Your task to perform on an android device: Add "bose soundlink" to the cart on amazon, then select checkout. Image 0: 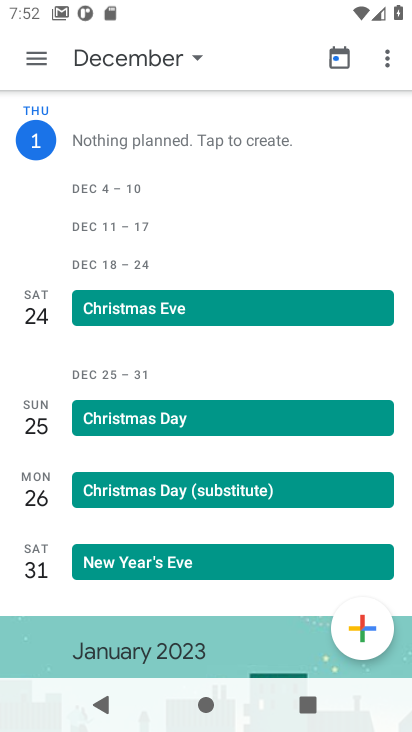
Step 0: press home button
Your task to perform on an android device: Add "bose soundlink" to the cart on amazon, then select checkout. Image 1: 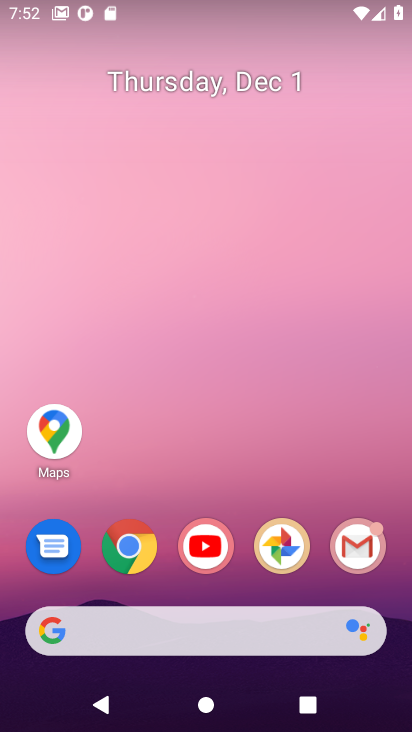
Step 1: click (139, 549)
Your task to perform on an android device: Add "bose soundlink" to the cart on amazon, then select checkout. Image 2: 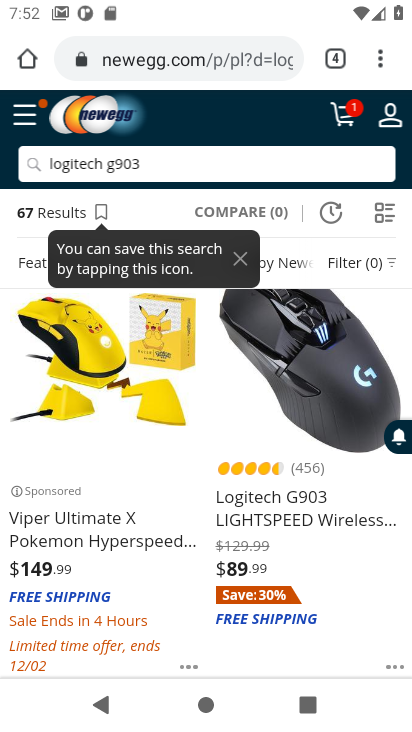
Step 2: click (235, 66)
Your task to perform on an android device: Add "bose soundlink" to the cart on amazon, then select checkout. Image 3: 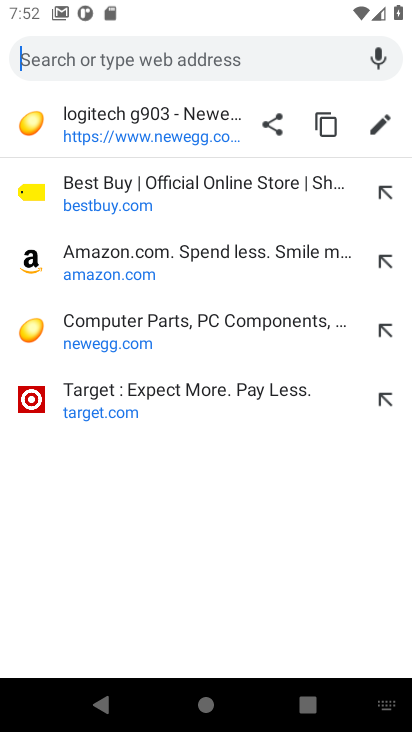
Step 3: click (116, 273)
Your task to perform on an android device: Add "bose soundlink" to the cart on amazon, then select checkout. Image 4: 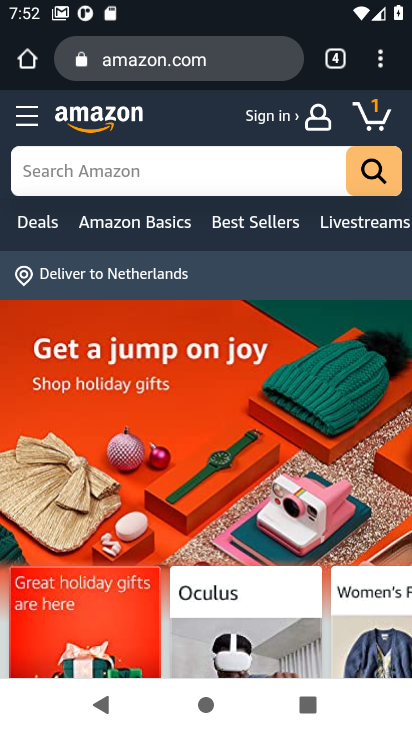
Step 4: click (73, 174)
Your task to perform on an android device: Add "bose soundlink" to the cart on amazon, then select checkout. Image 5: 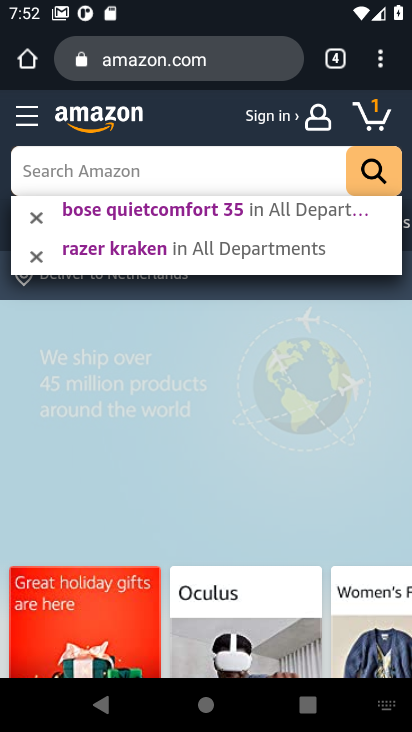
Step 5: type "bose soundlink"
Your task to perform on an android device: Add "bose soundlink" to the cart on amazon, then select checkout. Image 6: 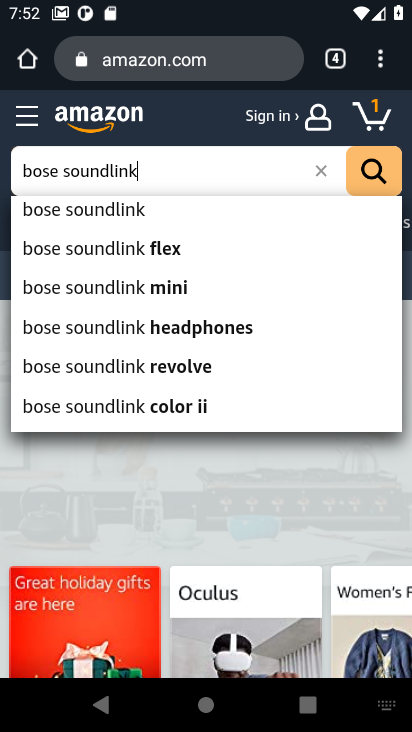
Step 6: click (100, 217)
Your task to perform on an android device: Add "bose soundlink" to the cart on amazon, then select checkout. Image 7: 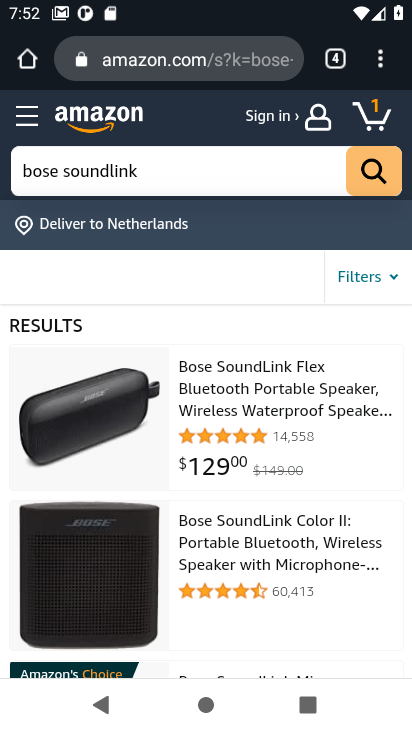
Step 7: click (227, 413)
Your task to perform on an android device: Add "bose soundlink" to the cart on amazon, then select checkout. Image 8: 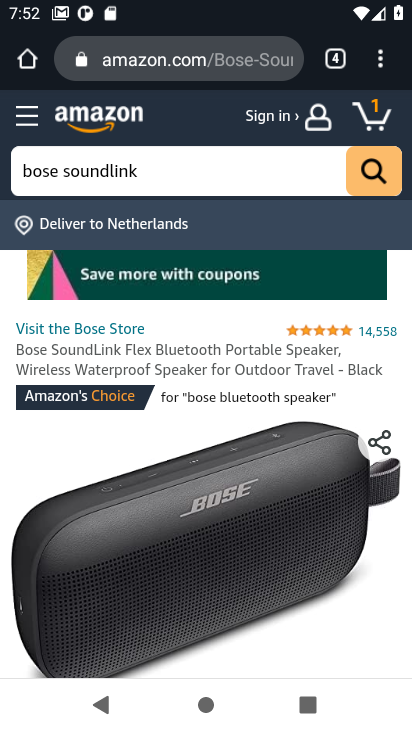
Step 8: drag from (212, 473) to (207, 326)
Your task to perform on an android device: Add "bose soundlink" to the cart on amazon, then select checkout. Image 9: 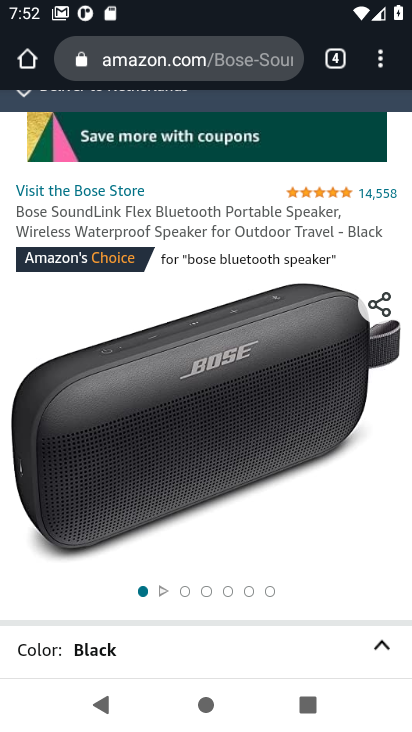
Step 9: drag from (220, 555) to (201, 214)
Your task to perform on an android device: Add "bose soundlink" to the cart on amazon, then select checkout. Image 10: 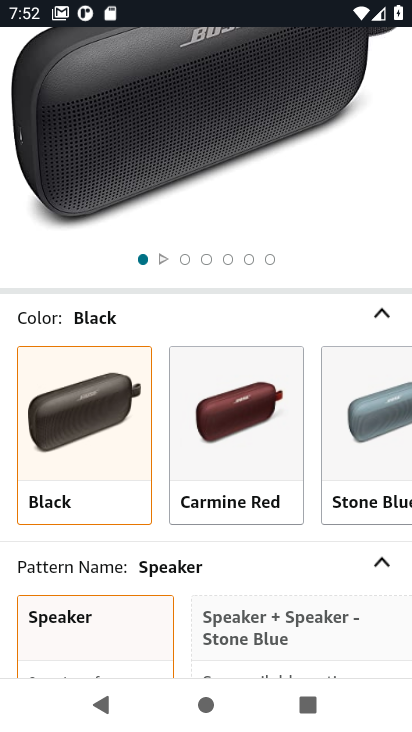
Step 10: drag from (195, 400) to (194, 185)
Your task to perform on an android device: Add "bose soundlink" to the cart on amazon, then select checkout. Image 11: 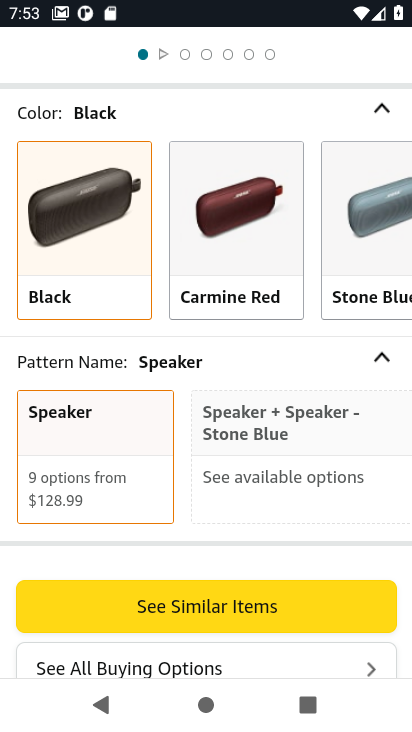
Step 11: press back button
Your task to perform on an android device: Add "bose soundlink" to the cart on amazon, then select checkout. Image 12: 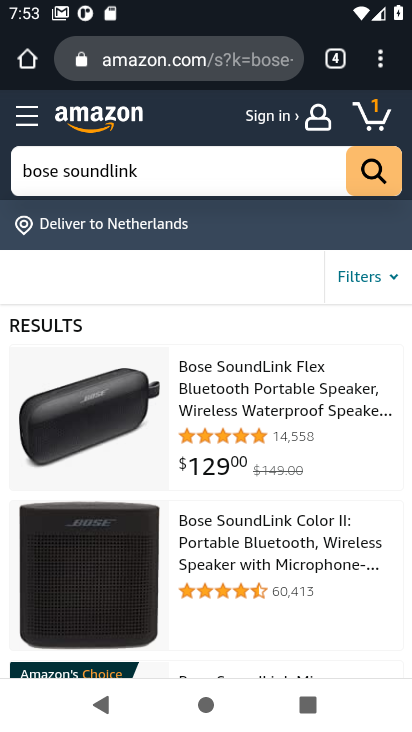
Step 12: drag from (247, 506) to (239, 320)
Your task to perform on an android device: Add "bose soundlink" to the cart on amazon, then select checkout. Image 13: 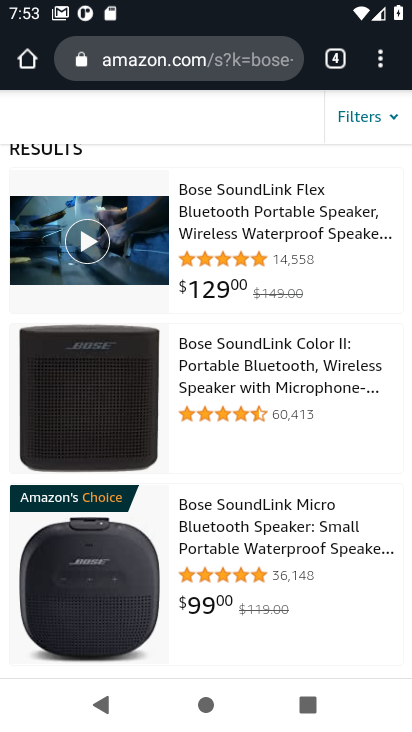
Step 13: drag from (223, 480) to (225, 298)
Your task to perform on an android device: Add "bose soundlink" to the cart on amazon, then select checkout. Image 14: 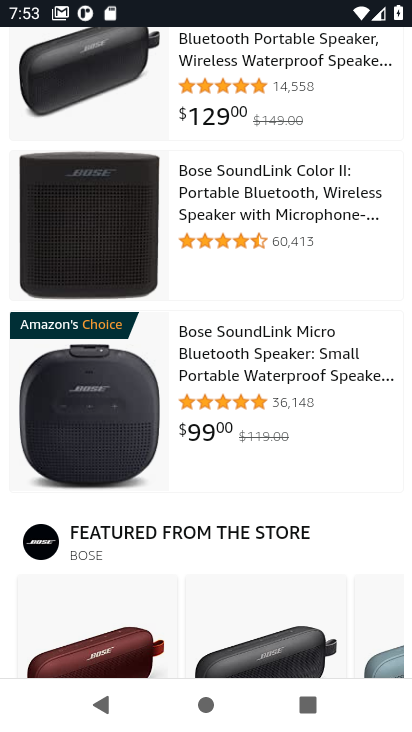
Step 14: drag from (218, 453) to (218, 325)
Your task to perform on an android device: Add "bose soundlink" to the cart on amazon, then select checkout. Image 15: 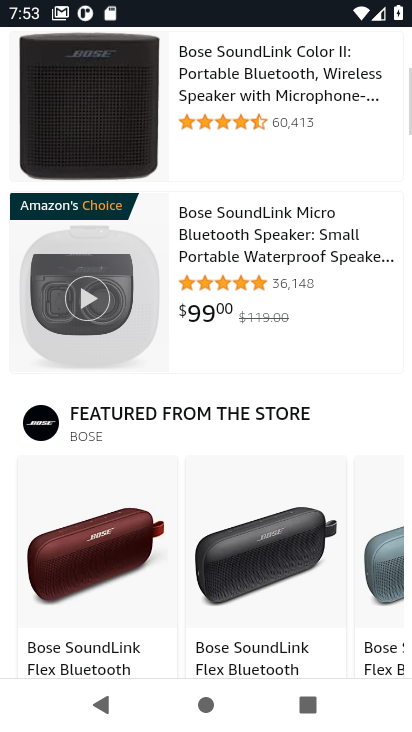
Step 15: drag from (205, 446) to (210, 320)
Your task to perform on an android device: Add "bose soundlink" to the cart on amazon, then select checkout. Image 16: 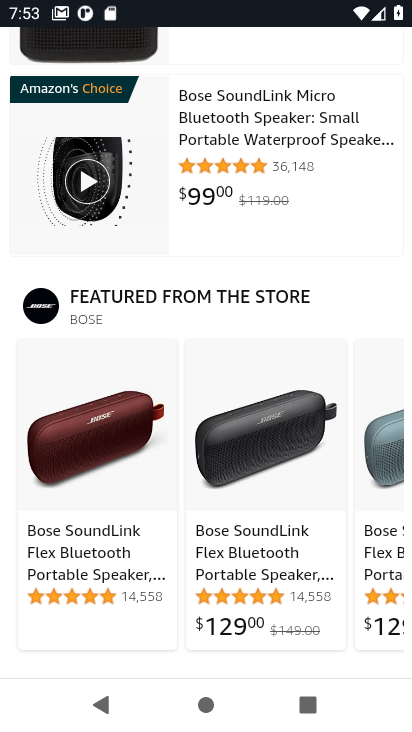
Step 16: drag from (229, 535) to (229, 231)
Your task to perform on an android device: Add "bose soundlink" to the cart on amazon, then select checkout. Image 17: 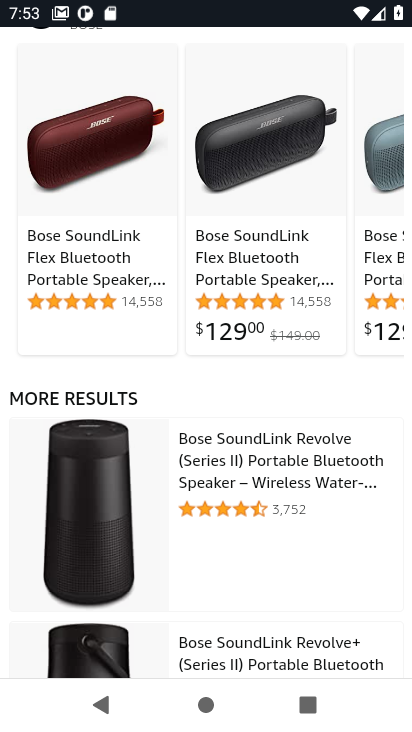
Step 17: drag from (220, 404) to (219, 230)
Your task to perform on an android device: Add "bose soundlink" to the cart on amazon, then select checkout. Image 18: 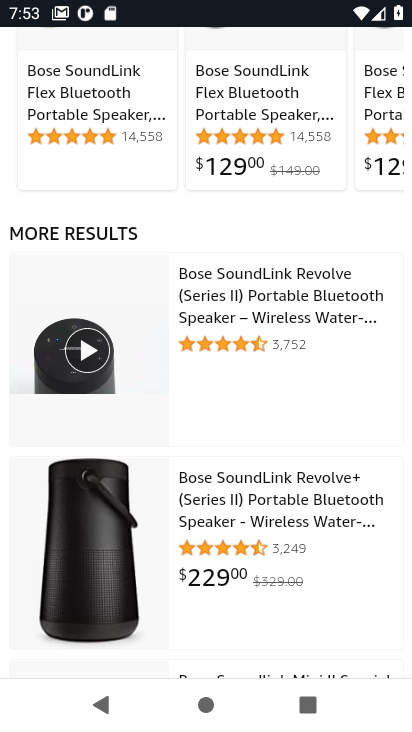
Step 18: drag from (221, 431) to (226, 291)
Your task to perform on an android device: Add "bose soundlink" to the cart on amazon, then select checkout. Image 19: 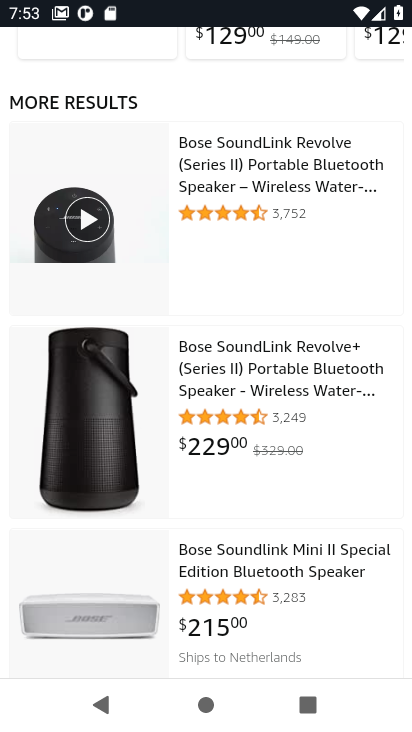
Step 19: drag from (223, 468) to (226, 261)
Your task to perform on an android device: Add "bose soundlink" to the cart on amazon, then select checkout. Image 20: 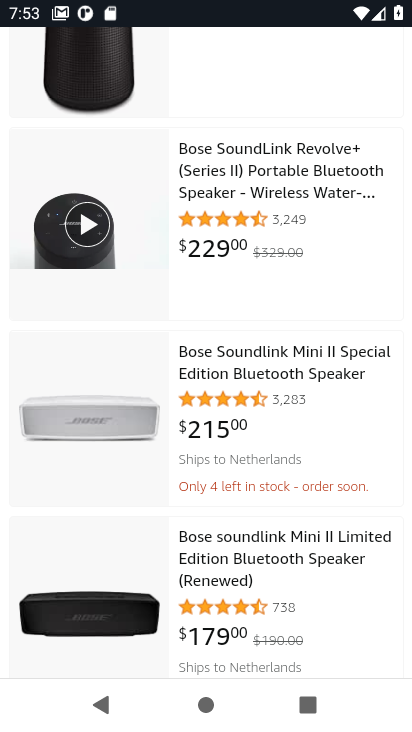
Step 20: click (221, 387)
Your task to perform on an android device: Add "bose soundlink" to the cart on amazon, then select checkout. Image 21: 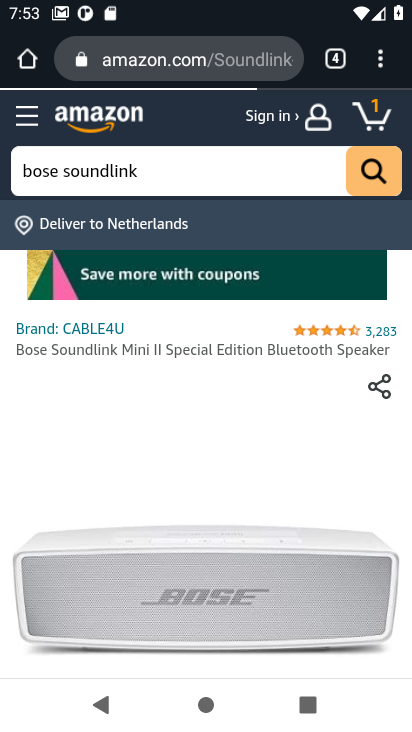
Step 21: drag from (188, 487) to (201, 260)
Your task to perform on an android device: Add "bose soundlink" to the cart on amazon, then select checkout. Image 22: 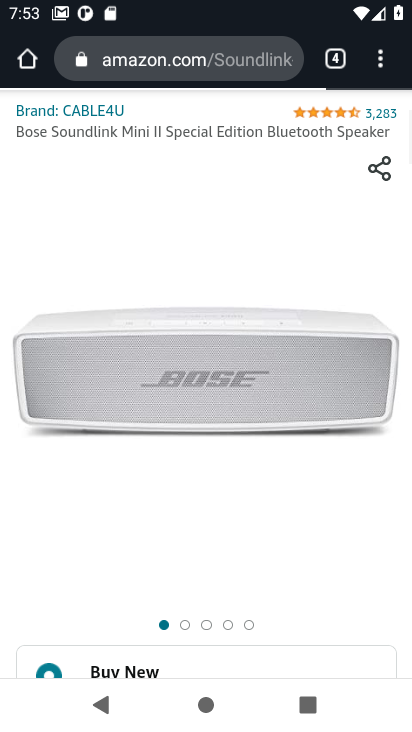
Step 22: drag from (221, 482) to (206, 244)
Your task to perform on an android device: Add "bose soundlink" to the cart on amazon, then select checkout. Image 23: 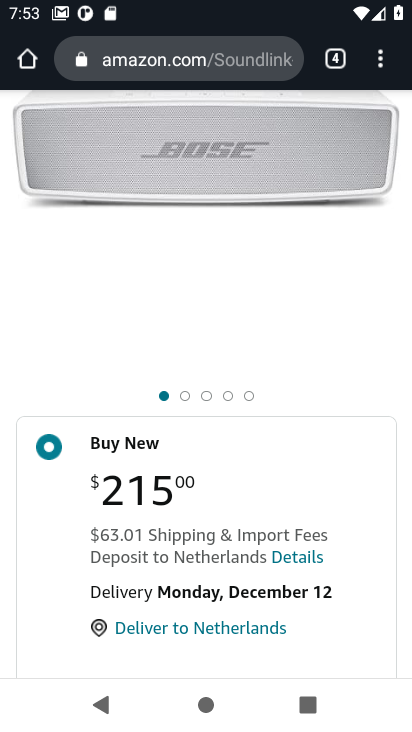
Step 23: drag from (152, 436) to (151, 328)
Your task to perform on an android device: Add "bose soundlink" to the cart on amazon, then select checkout. Image 24: 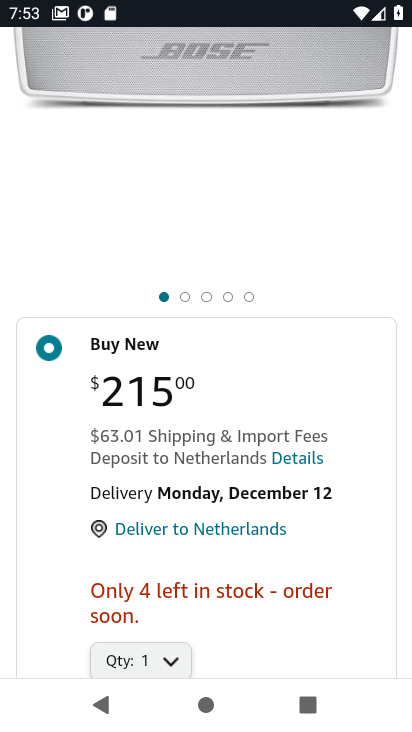
Step 24: drag from (182, 518) to (181, 380)
Your task to perform on an android device: Add "bose soundlink" to the cart on amazon, then select checkout. Image 25: 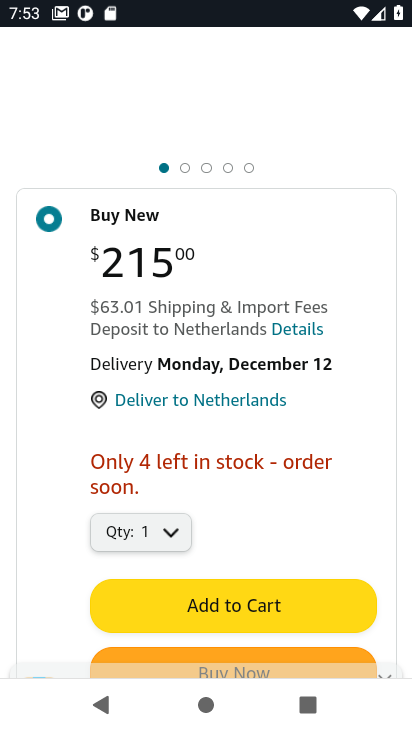
Step 25: click (199, 599)
Your task to perform on an android device: Add "bose soundlink" to the cart on amazon, then select checkout. Image 26: 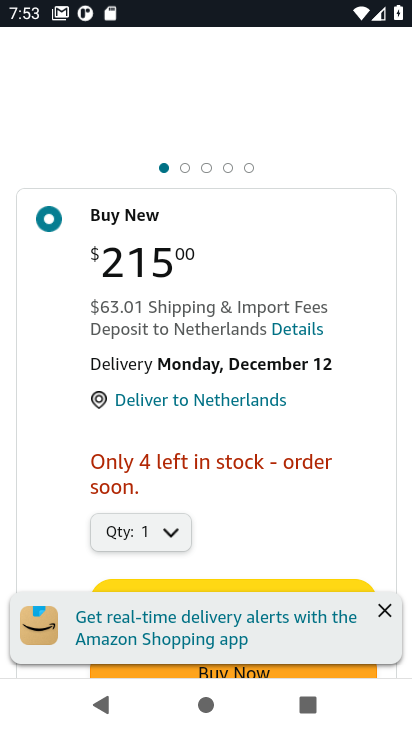
Step 26: click (380, 610)
Your task to perform on an android device: Add "bose soundlink" to the cart on amazon, then select checkout. Image 27: 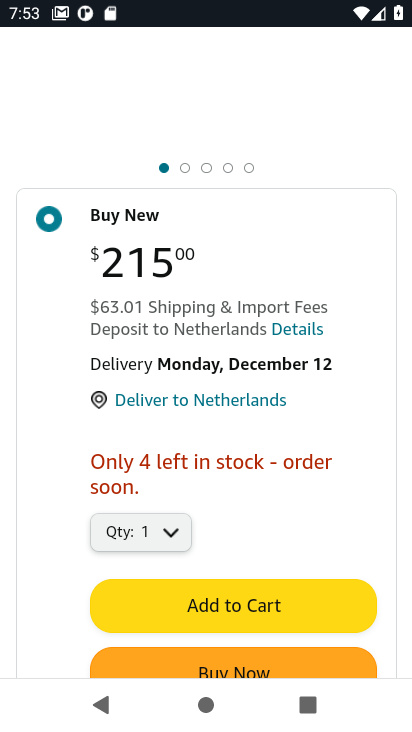
Step 27: click (253, 609)
Your task to perform on an android device: Add "bose soundlink" to the cart on amazon, then select checkout. Image 28: 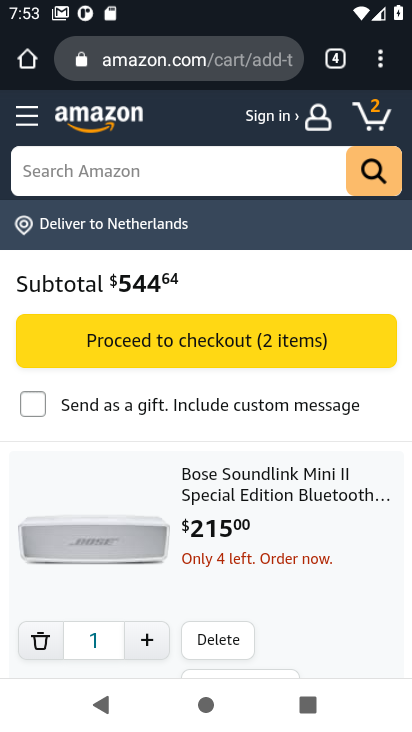
Step 28: click (170, 337)
Your task to perform on an android device: Add "bose soundlink" to the cart on amazon, then select checkout. Image 29: 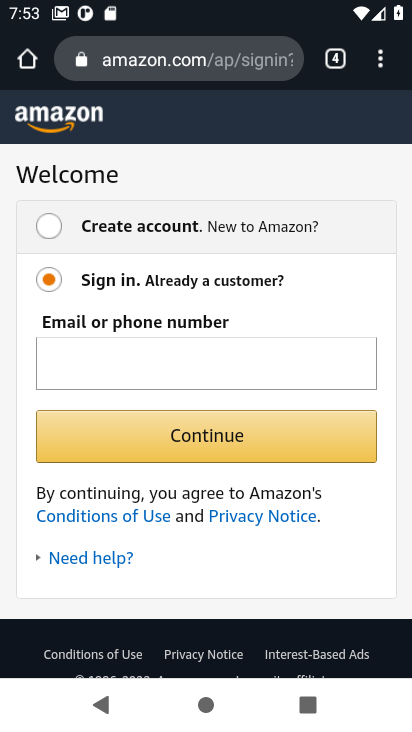
Step 29: task complete